Your task to perform on an android device: check data usage Image 0: 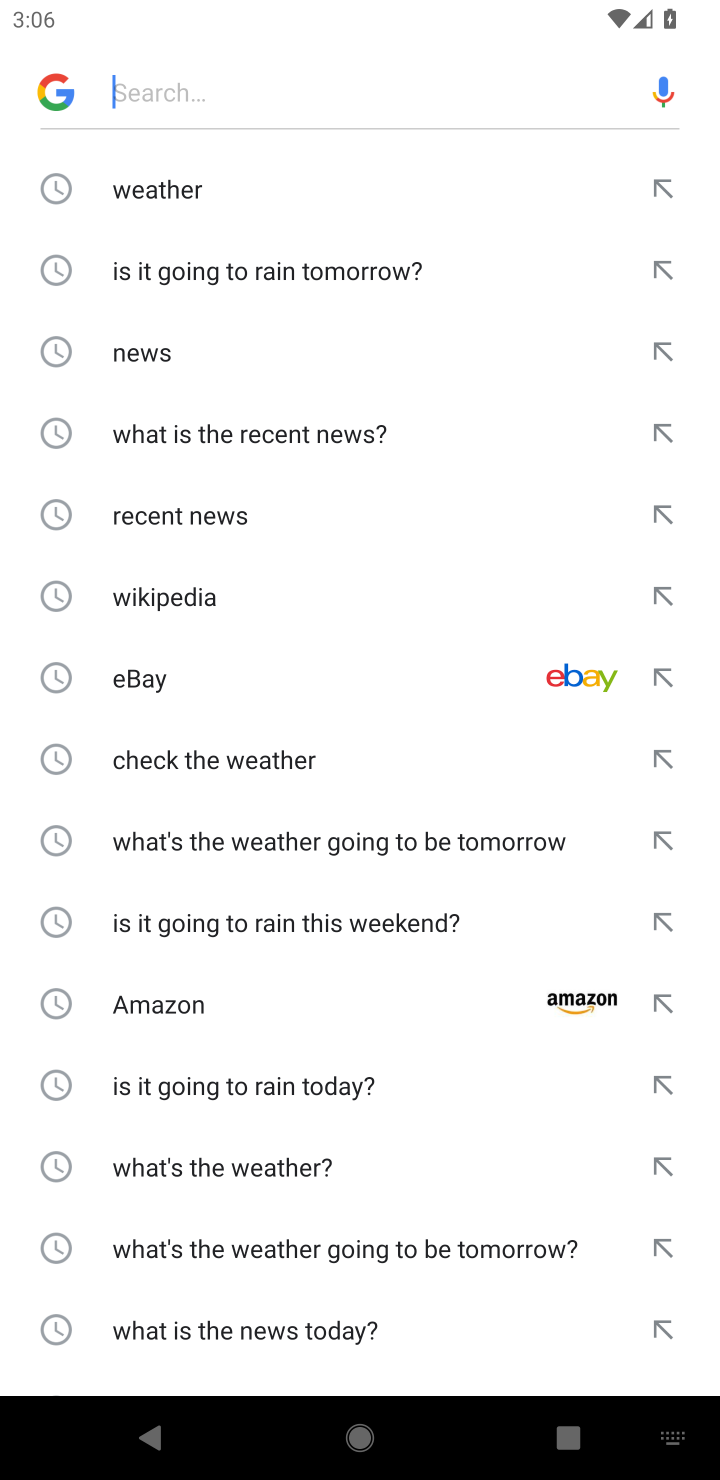
Step 0: press home button
Your task to perform on an android device: check data usage Image 1: 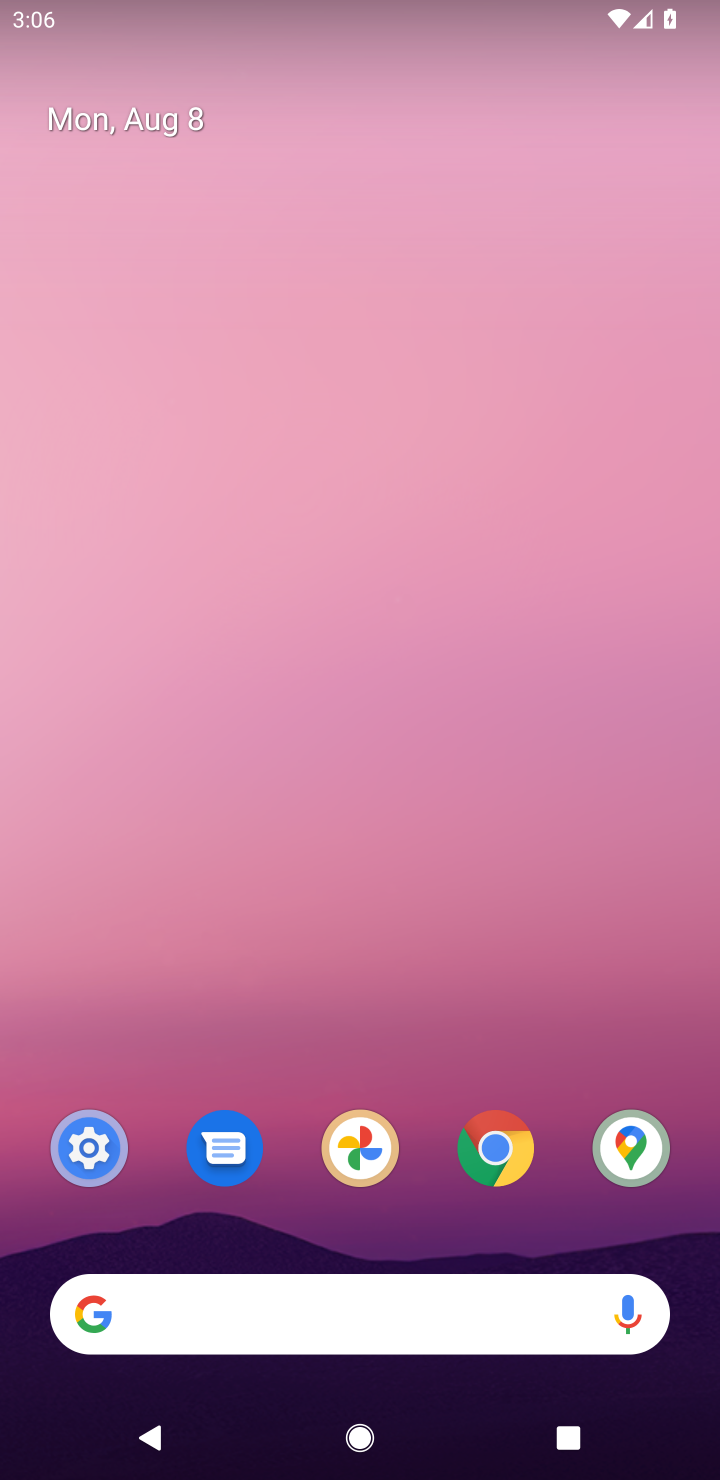
Step 1: click (87, 1156)
Your task to perform on an android device: check data usage Image 2: 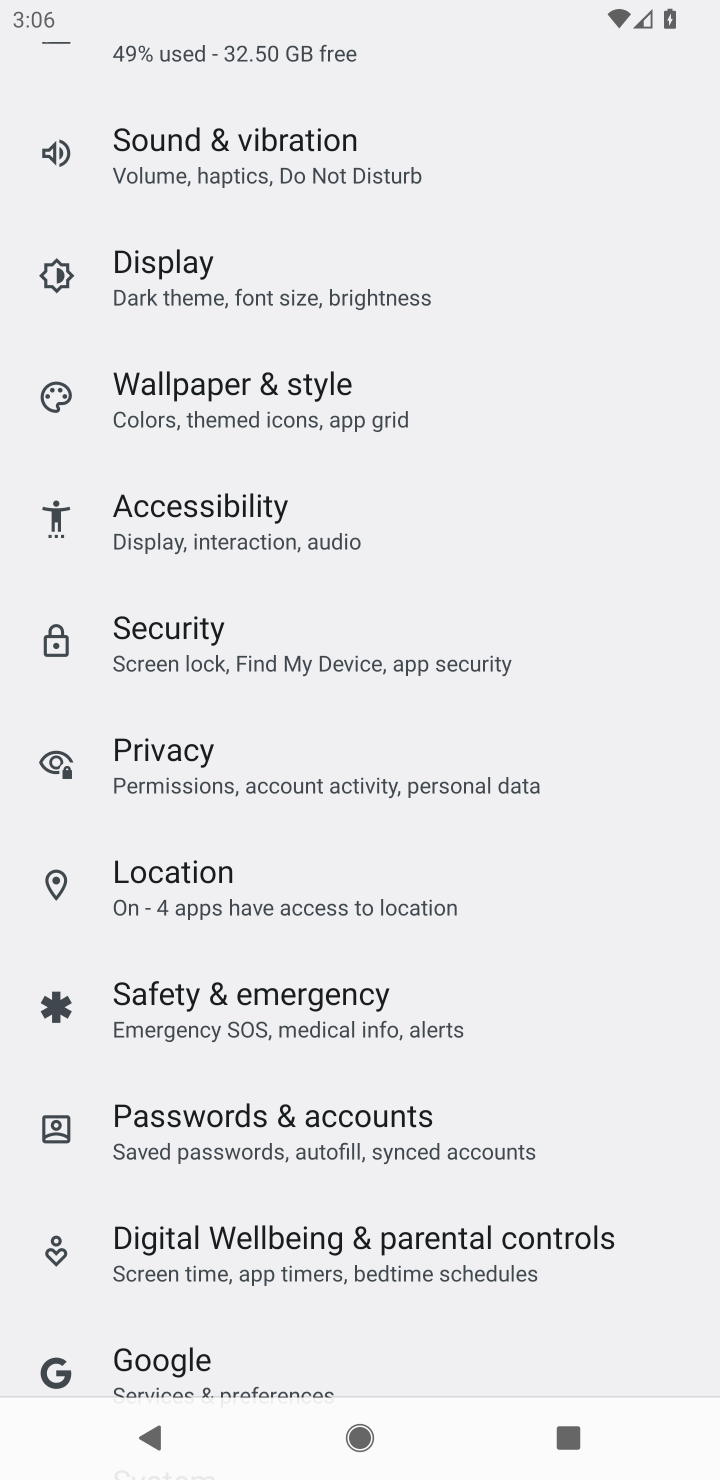
Step 2: drag from (300, 342) to (336, 953)
Your task to perform on an android device: check data usage Image 3: 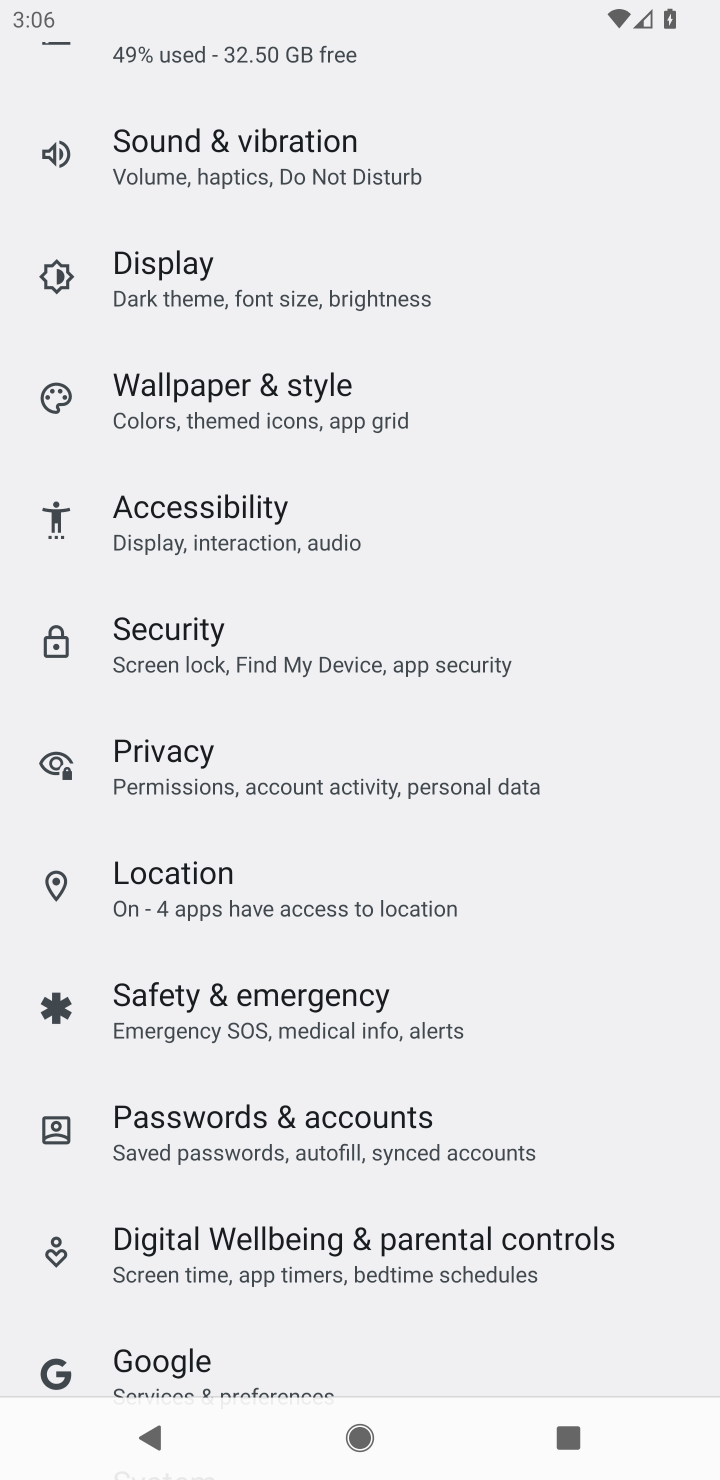
Step 3: drag from (414, 266) to (418, 857)
Your task to perform on an android device: check data usage Image 4: 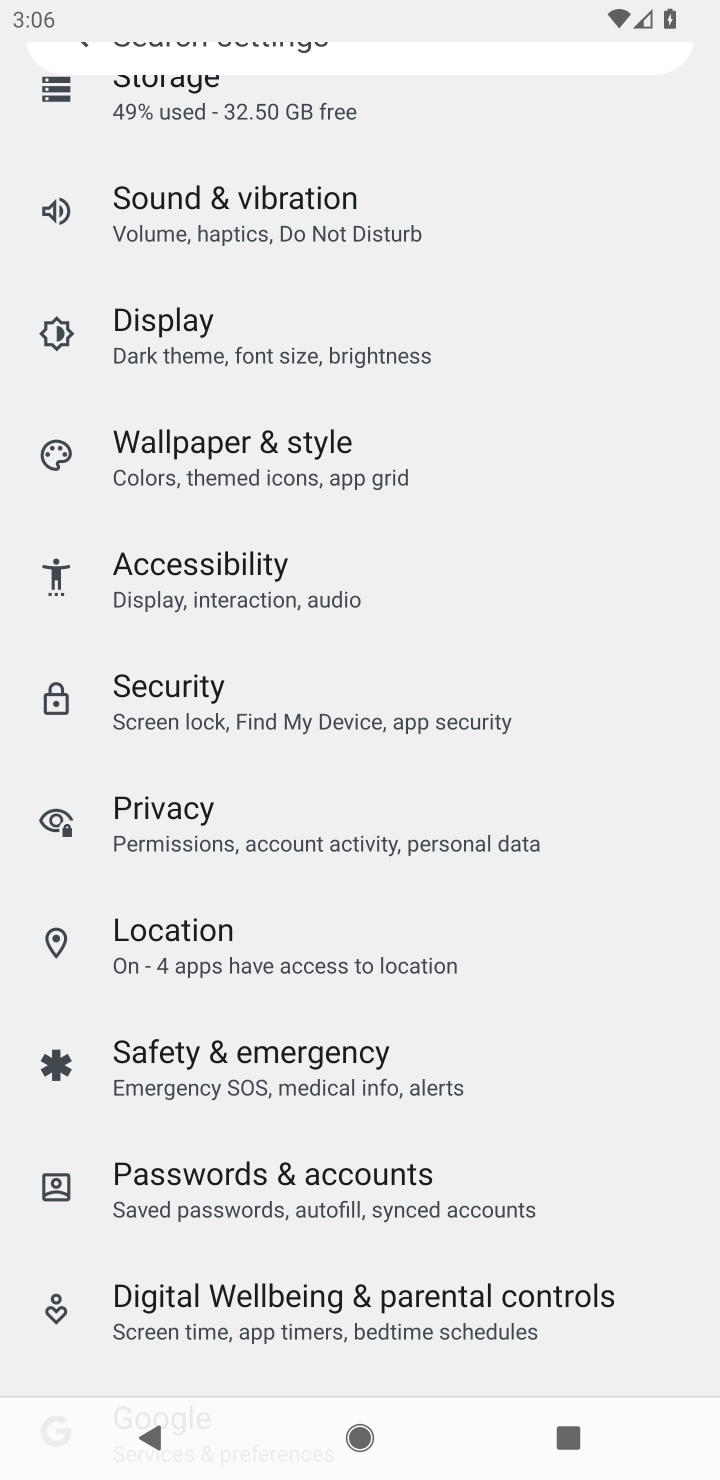
Step 4: drag from (351, 165) to (395, 505)
Your task to perform on an android device: check data usage Image 5: 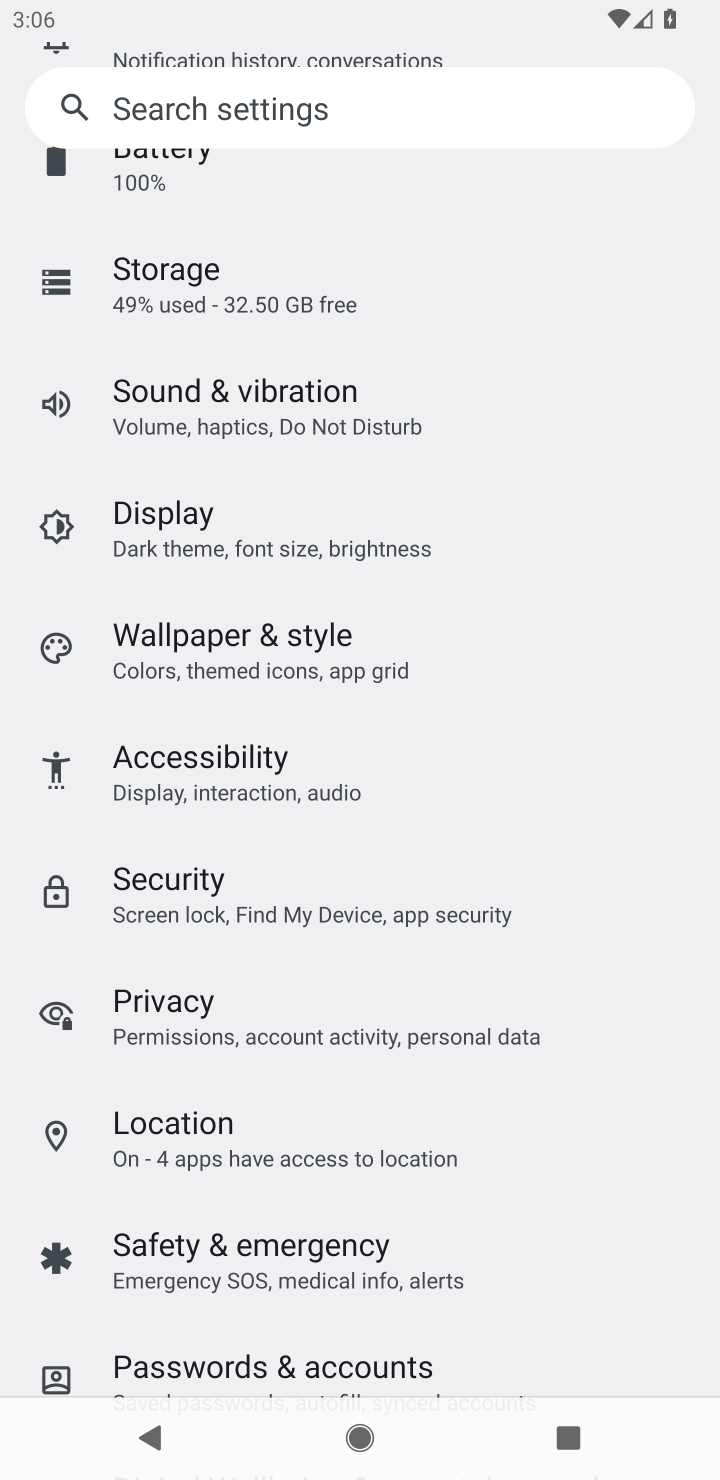
Step 5: drag from (361, 176) to (442, 847)
Your task to perform on an android device: check data usage Image 6: 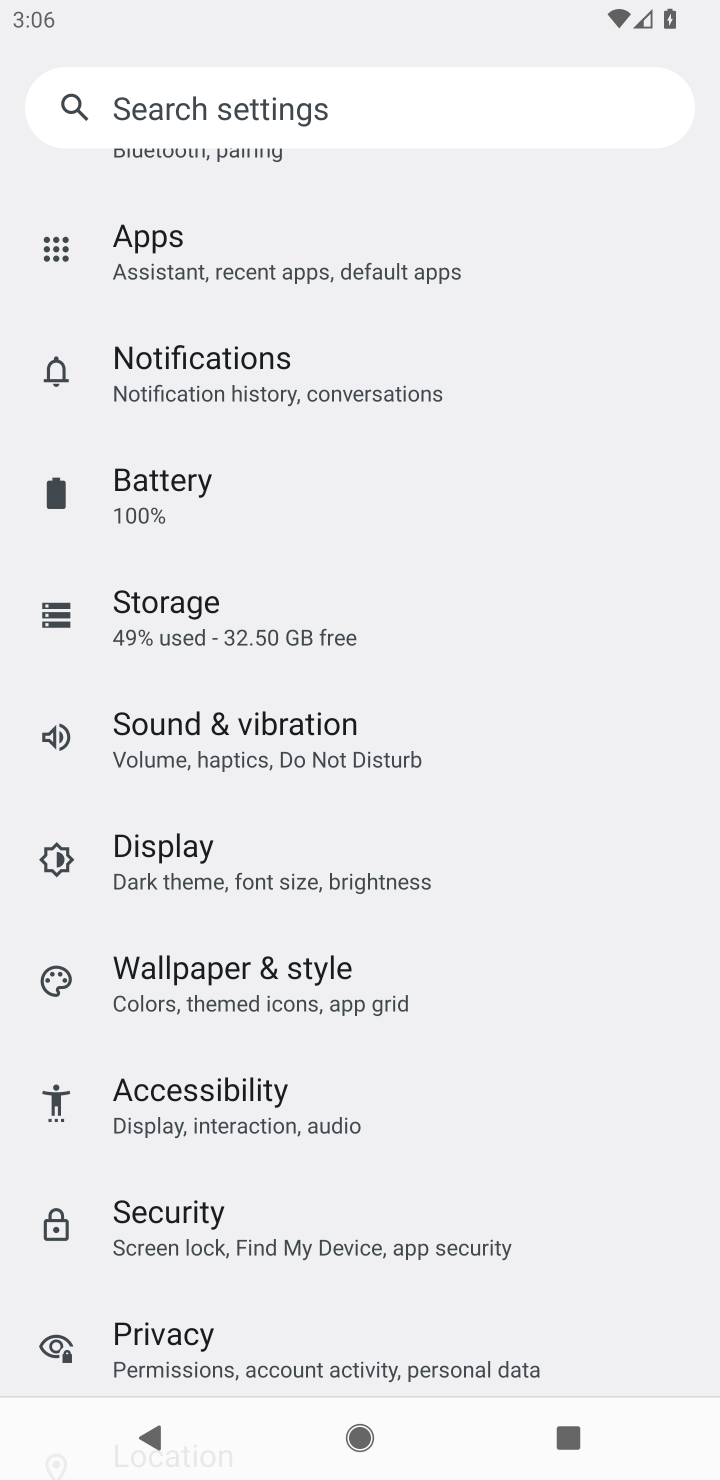
Step 6: drag from (332, 289) to (434, 1072)
Your task to perform on an android device: check data usage Image 7: 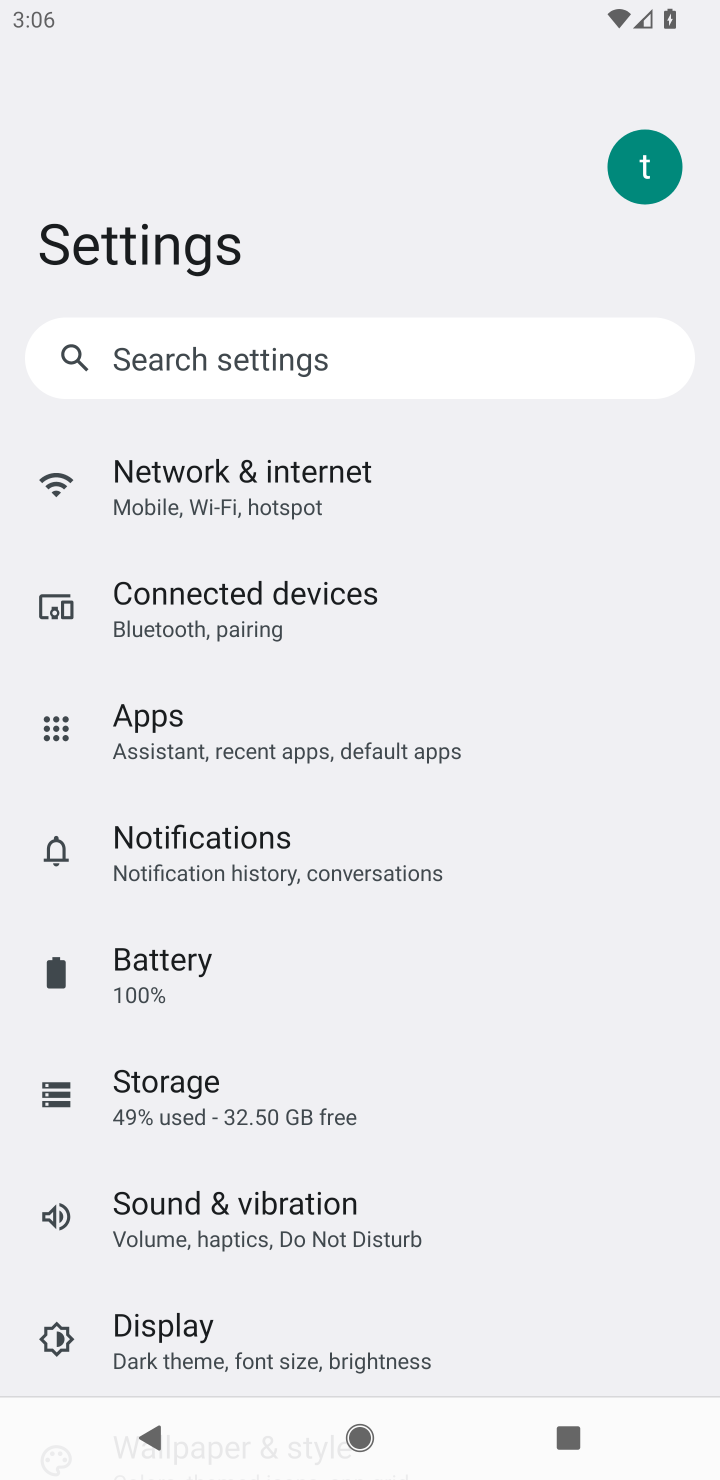
Step 7: click (305, 490)
Your task to perform on an android device: check data usage Image 8: 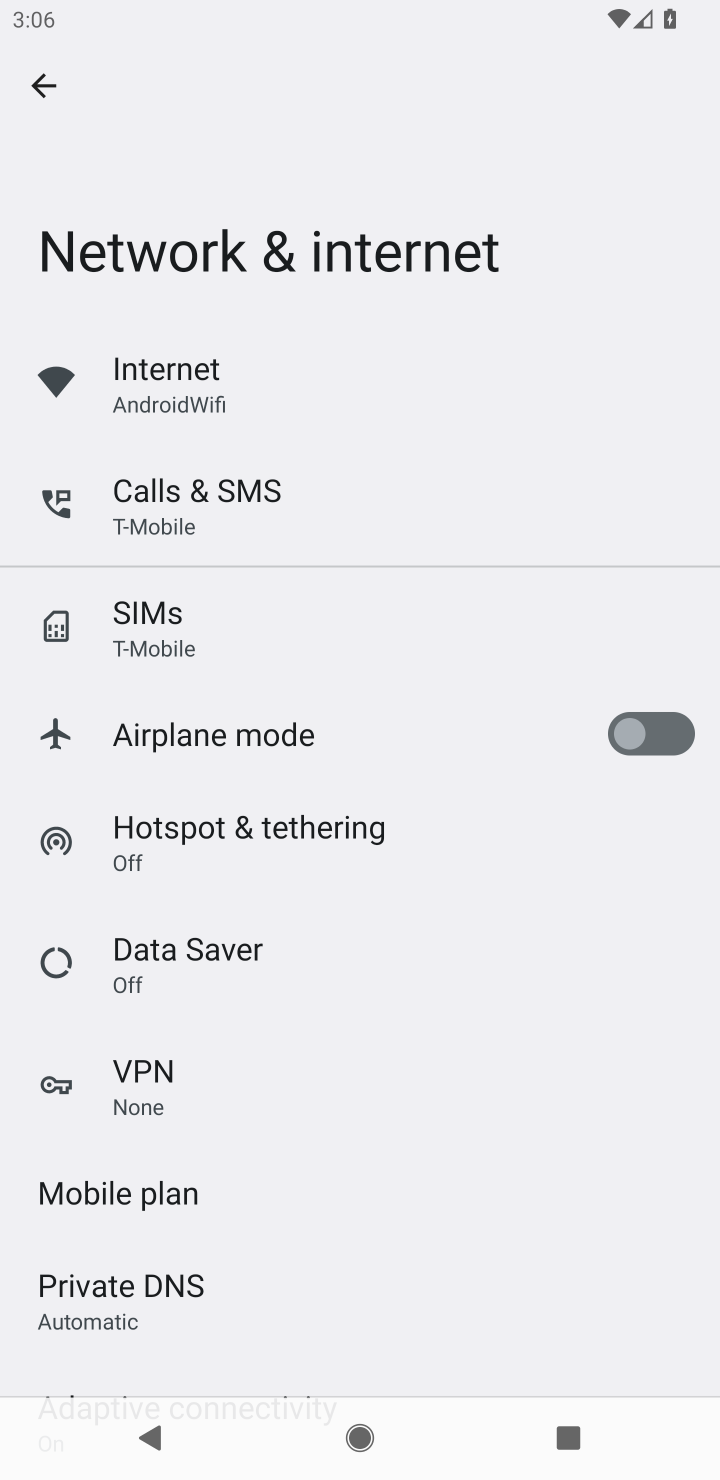
Step 8: click (186, 385)
Your task to perform on an android device: check data usage Image 9: 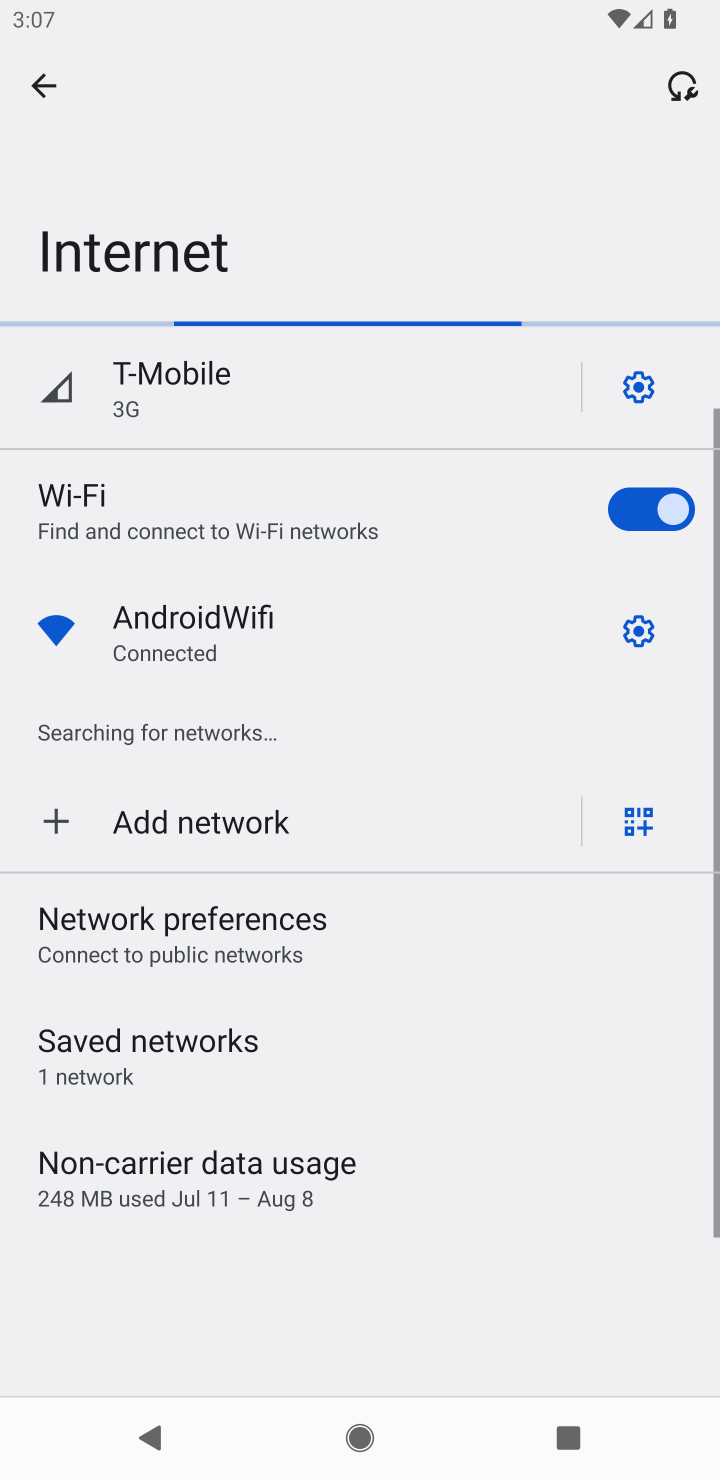
Step 9: click (397, 395)
Your task to perform on an android device: check data usage Image 10: 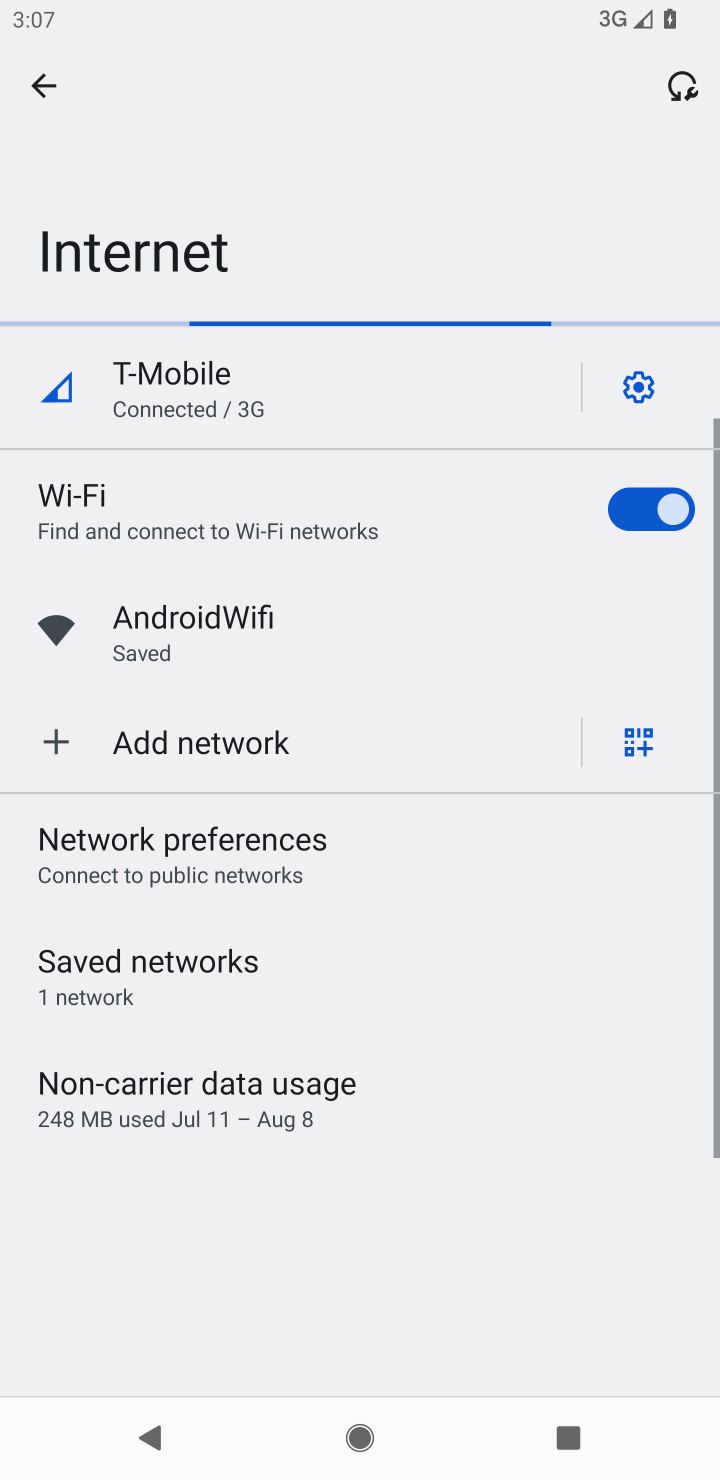
Step 10: click (215, 1073)
Your task to perform on an android device: check data usage Image 11: 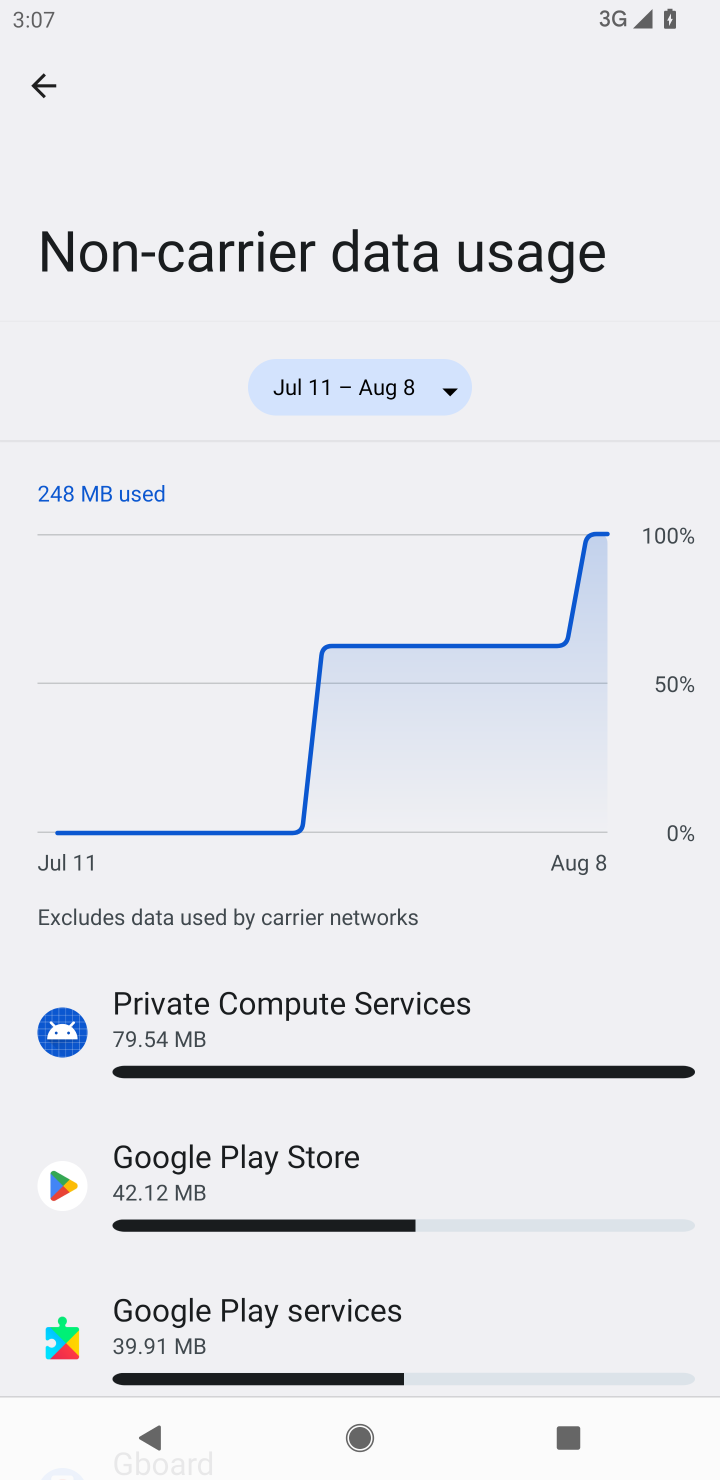
Step 11: task complete